Your task to perform on an android device: Go to display settings Image 0: 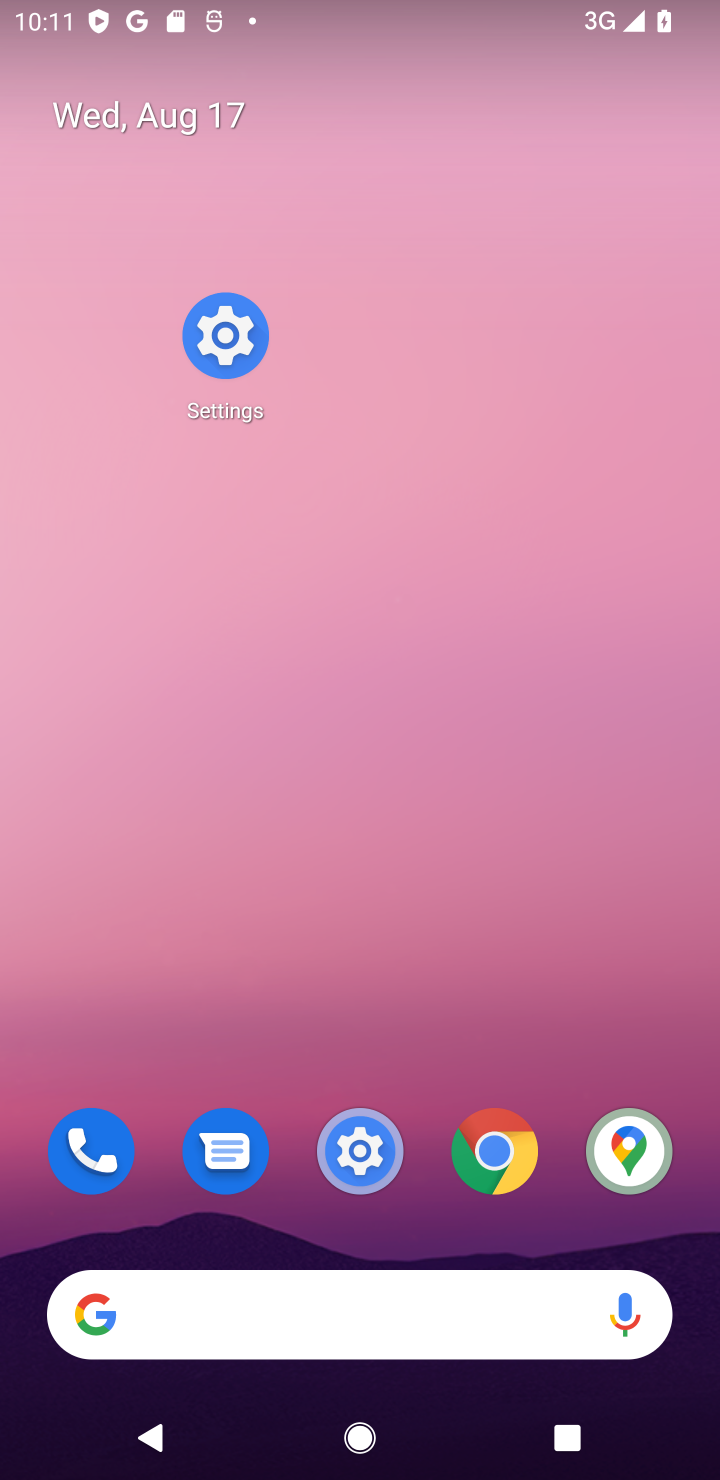
Step 0: click (350, 1161)
Your task to perform on an android device: Go to display settings Image 1: 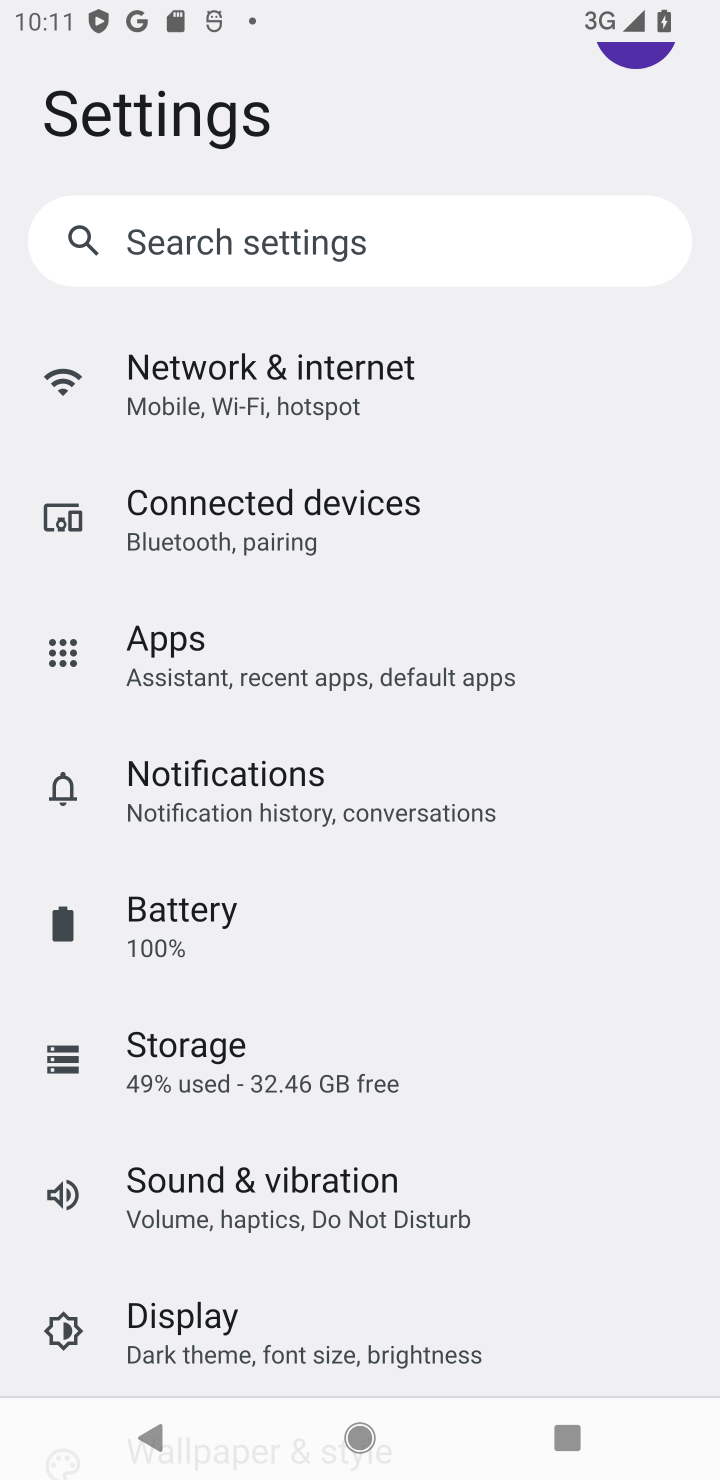
Step 1: click (197, 1352)
Your task to perform on an android device: Go to display settings Image 2: 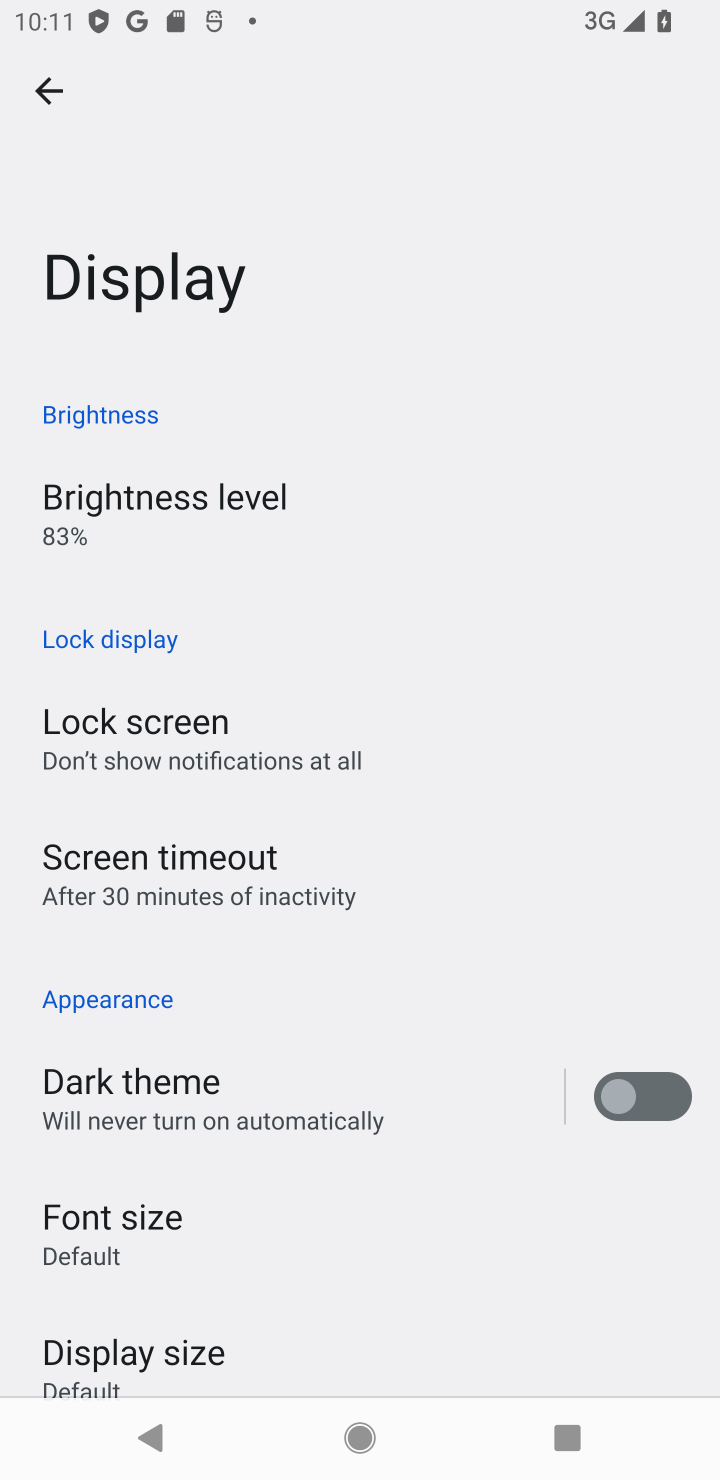
Step 2: task complete